Your task to perform on an android device: turn on sleep mode Image 0: 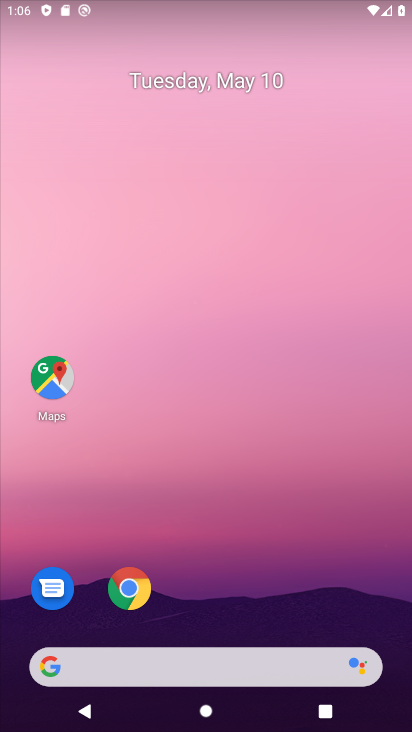
Step 0: drag from (277, 683) to (152, 164)
Your task to perform on an android device: turn on sleep mode Image 1: 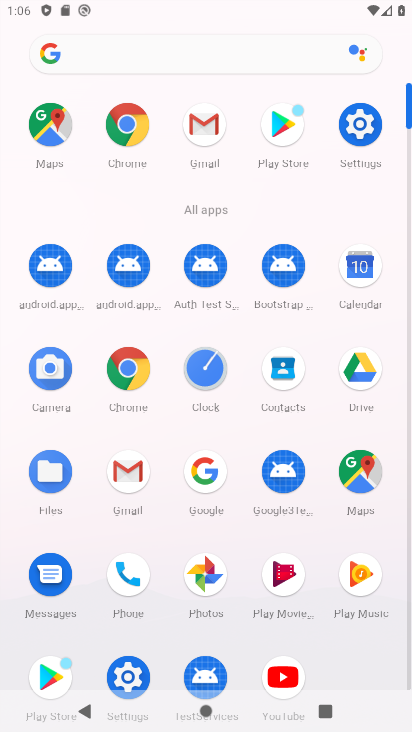
Step 1: click (147, 659)
Your task to perform on an android device: turn on sleep mode Image 2: 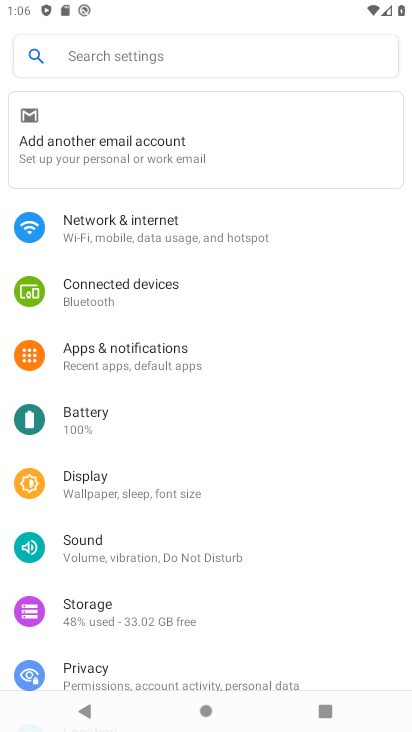
Step 2: click (152, 58)
Your task to perform on an android device: turn on sleep mode Image 3: 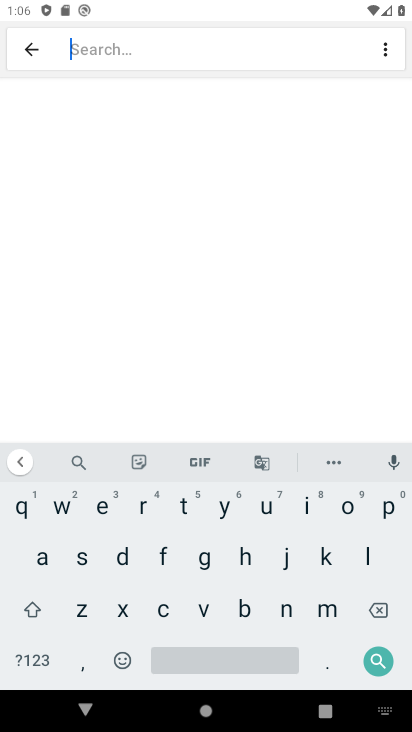
Step 3: click (91, 561)
Your task to perform on an android device: turn on sleep mode Image 4: 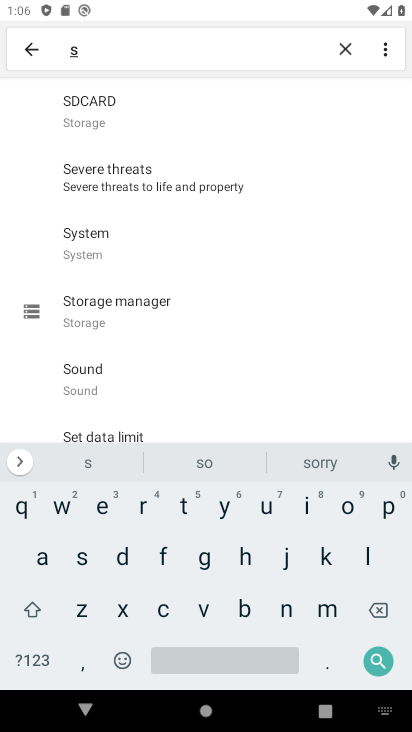
Step 4: click (366, 553)
Your task to perform on an android device: turn on sleep mode Image 5: 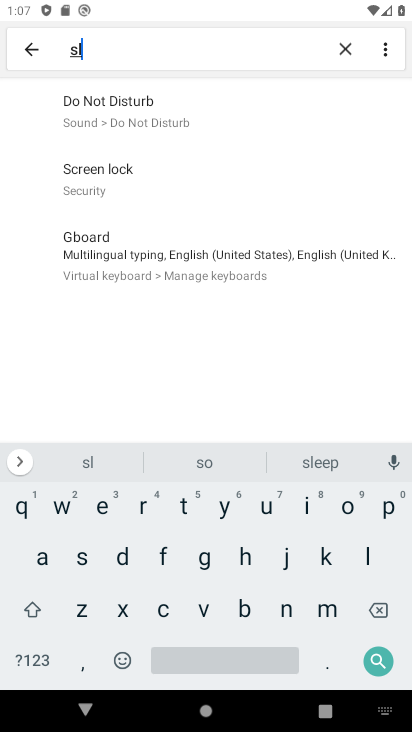
Step 5: click (159, 114)
Your task to perform on an android device: turn on sleep mode Image 6: 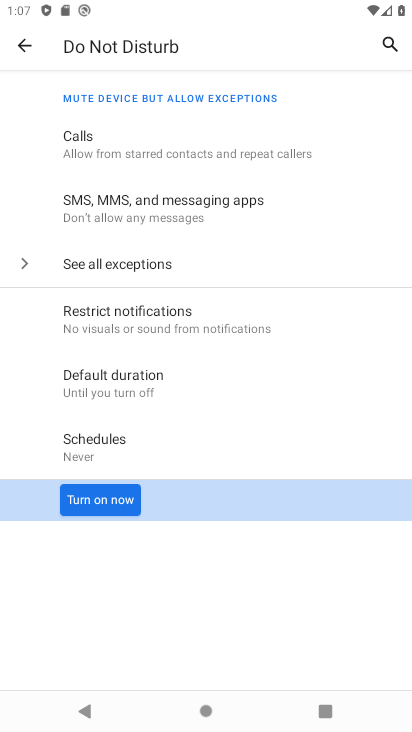
Step 6: click (127, 495)
Your task to perform on an android device: turn on sleep mode Image 7: 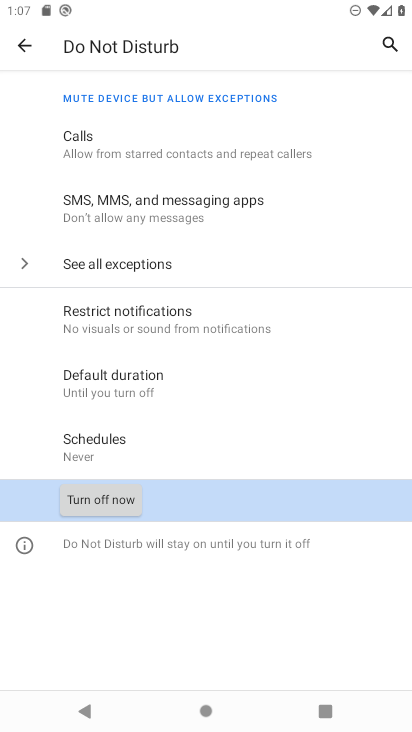
Step 7: task complete